Your task to perform on an android device: Open settings Image 0: 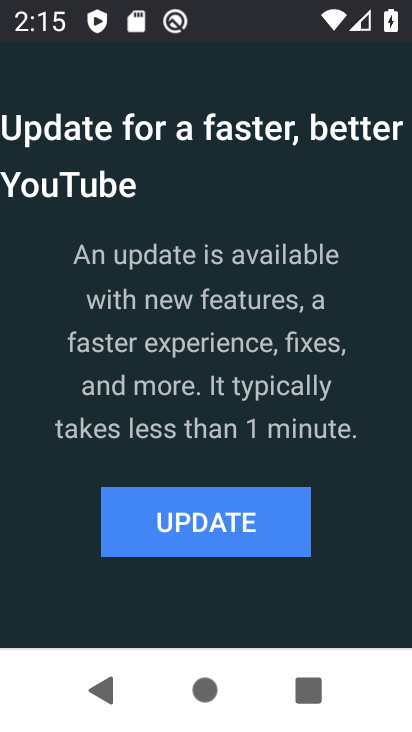
Step 0: press home button
Your task to perform on an android device: Open settings Image 1: 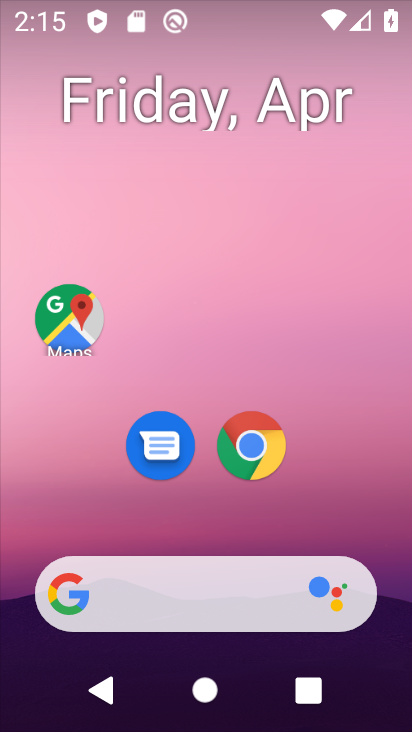
Step 1: drag from (321, 519) to (242, 31)
Your task to perform on an android device: Open settings Image 2: 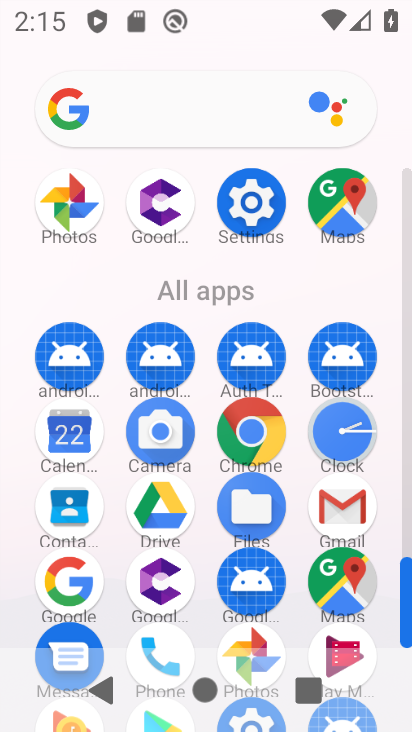
Step 2: click (250, 202)
Your task to perform on an android device: Open settings Image 3: 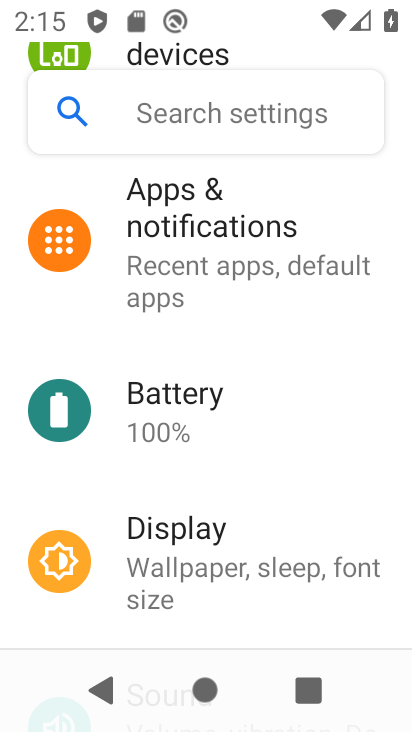
Step 3: task complete